Your task to perform on an android device: Search for seafood restaurants on Google Maps Image 0: 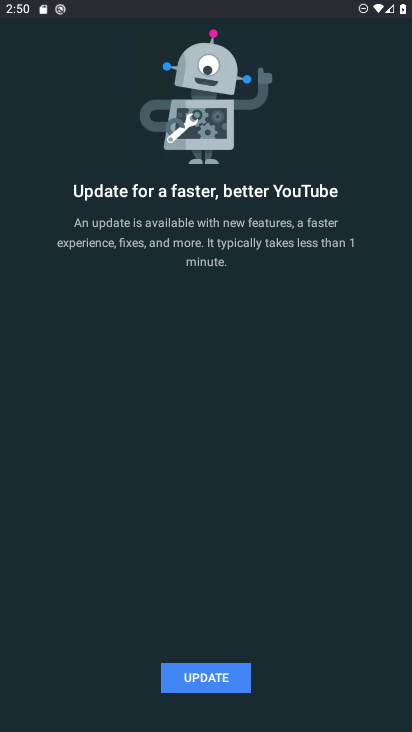
Step 0: press home button
Your task to perform on an android device: Search for seafood restaurants on Google Maps Image 1: 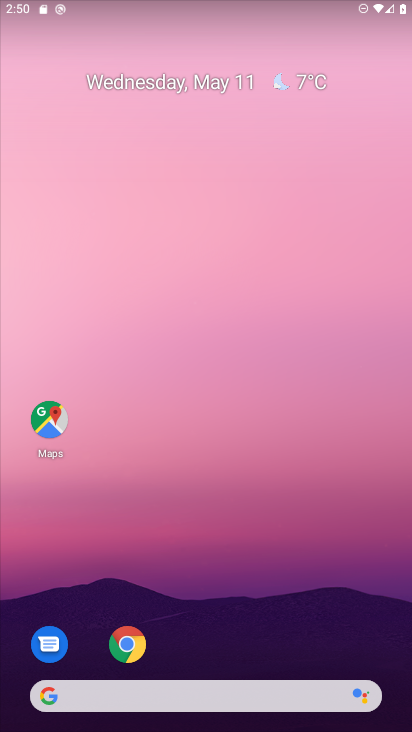
Step 1: click (173, 424)
Your task to perform on an android device: Search for seafood restaurants on Google Maps Image 2: 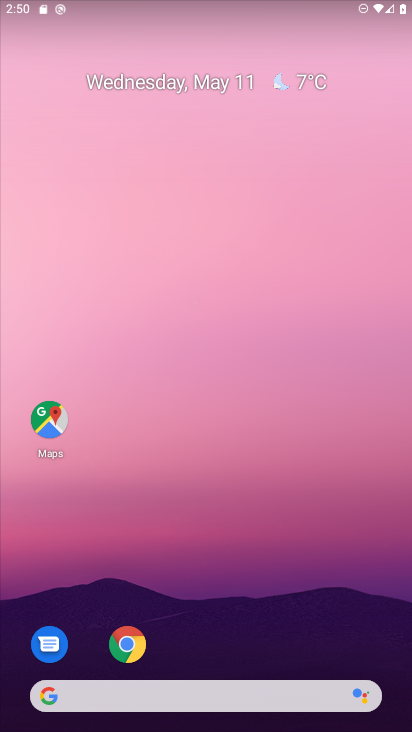
Step 2: click (61, 419)
Your task to perform on an android device: Search for seafood restaurants on Google Maps Image 3: 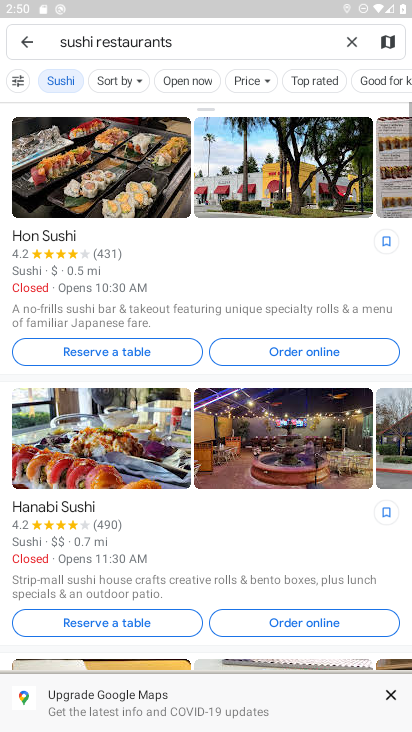
Step 3: click (349, 38)
Your task to perform on an android device: Search for seafood restaurants on Google Maps Image 4: 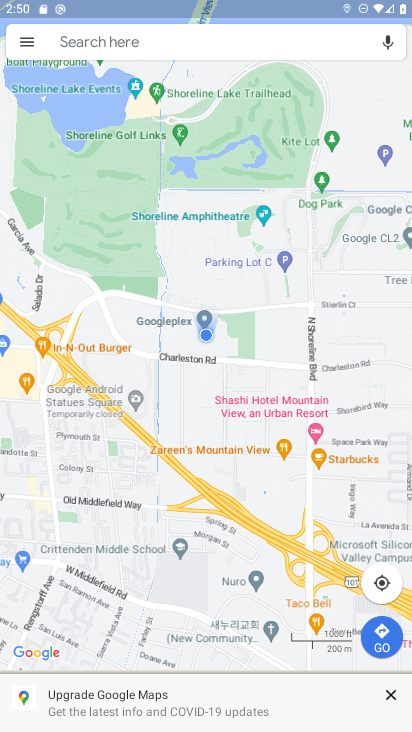
Step 4: click (170, 38)
Your task to perform on an android device: Search for seafood restaurants on Google Maps Image 5: 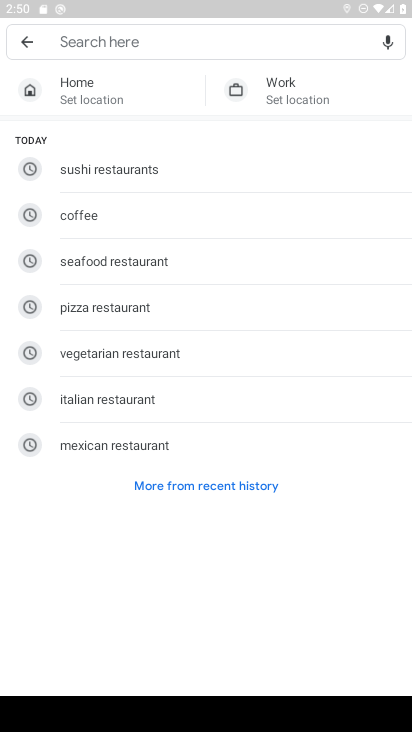
Step 5: click (125, 262)
Your task to perform on an android device: Search for seafood restaurants on Google Maps Image 6: 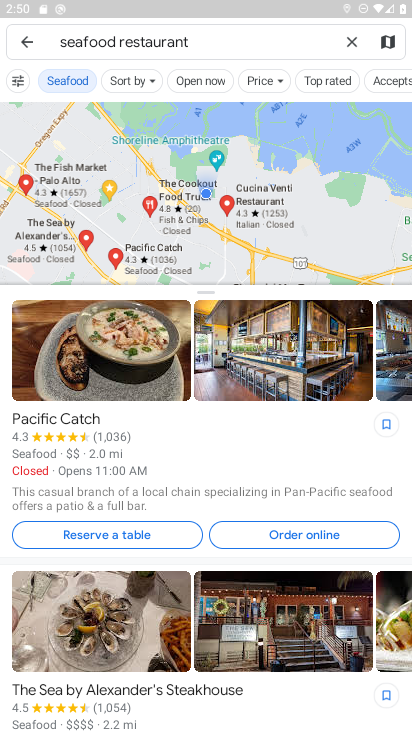
Step 6: task complete